Your task to perform on an android device: Show me popular videos on Youtube Image 0: 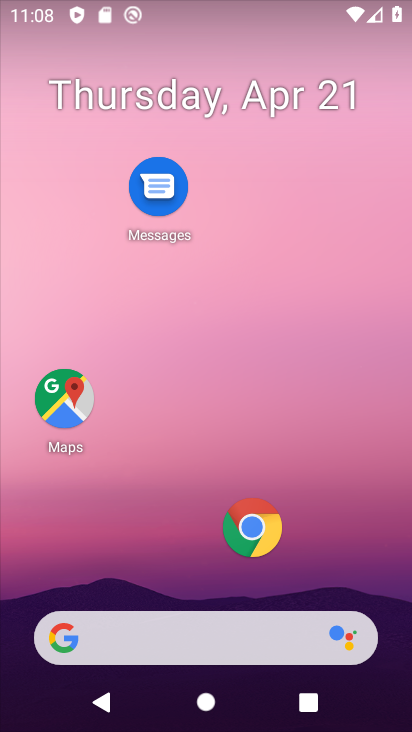
Step 0: drag from (194, 528) to (329, 11)
Your task to perform on an android device: Show me popular videos on Youtube Image 1: 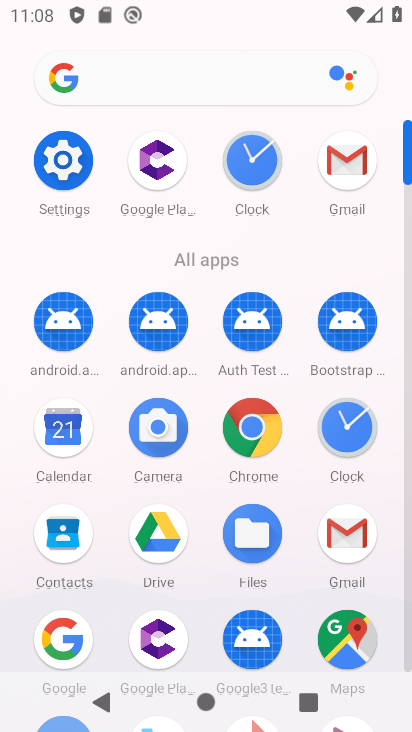
Step 1: drag from (214, 614) to (216, 76)
Your task to perform on an android device: Show me popular videos on Youtube Image 2: 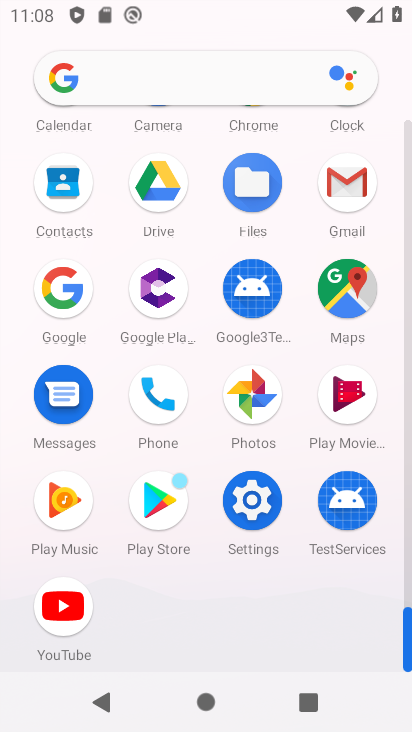
Step 2: click (60, 622)
Your task to perform on an android device: Show me popular videos on Youtube Image 3: 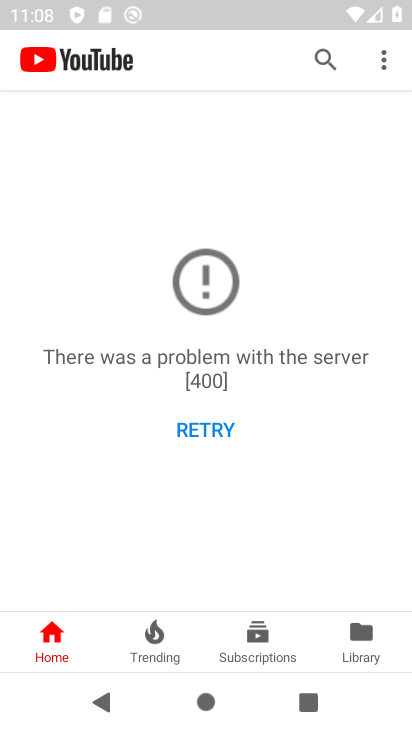
Step 3: click (155, 648)
Your task to perform on an android device: Show me popular videos on Youtube Image 4: 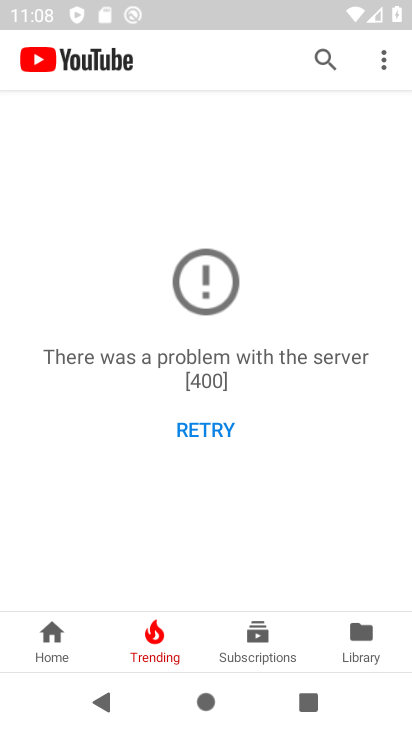
Step 4: task complete